Your task to perform on an android device: Search for "beats solo 3" on bestbuy.com, select the first entry, add it to the cart, then select checkout. Image 0: 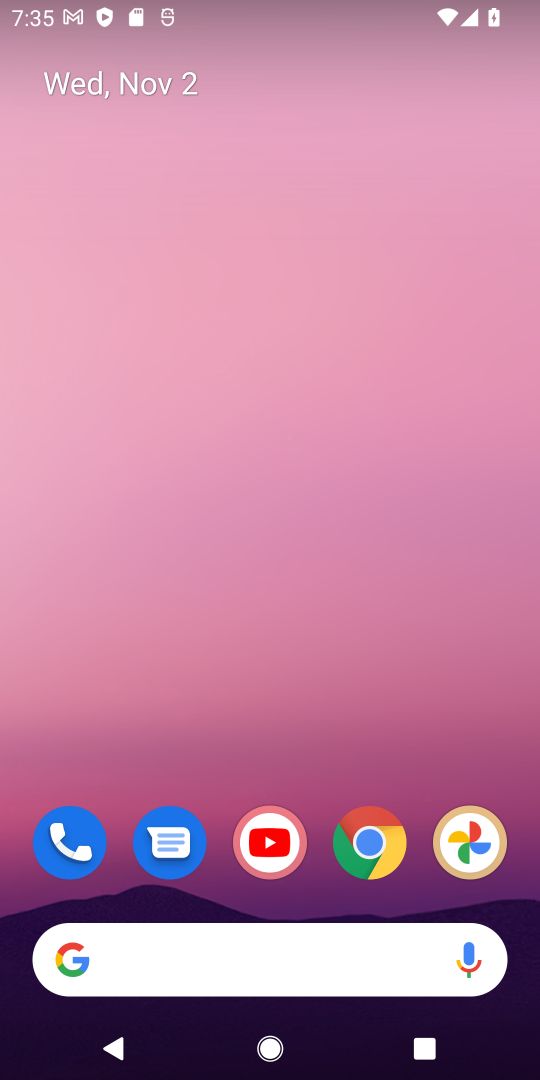
Step 0: drag from (216, 938) to (244, 308)
Your task to perform on an android device: Search for "beats solo 3" on bestbuy.com, select the first entry, add it to the cart, then select checkout. Image 1: 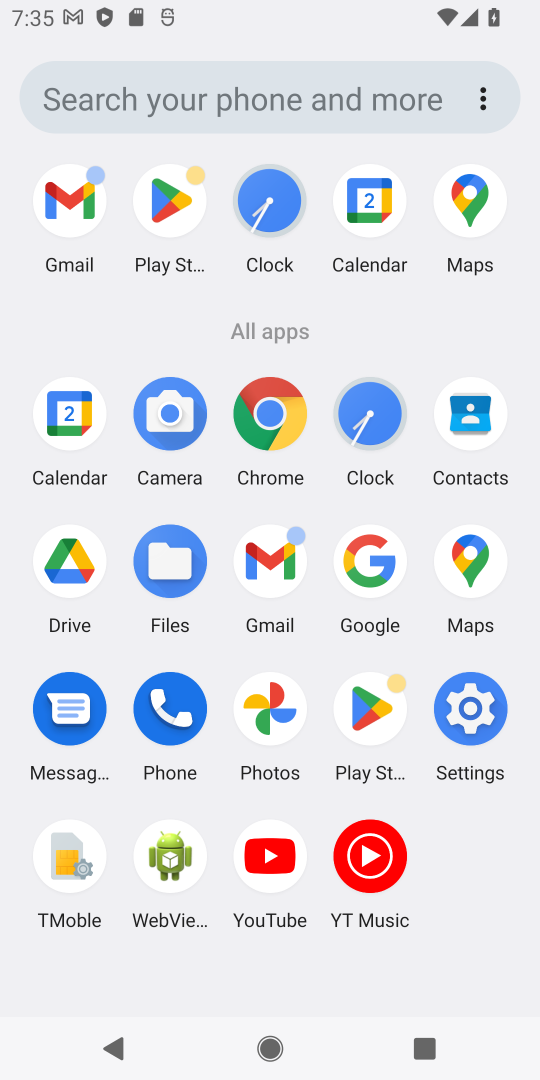
Step 1: click (354, 550)
Your task to perform on an android device: Search for "beats solo 3" on bestbuy.com, select the first entry, add it to the cart, then select checkout. Image 2: 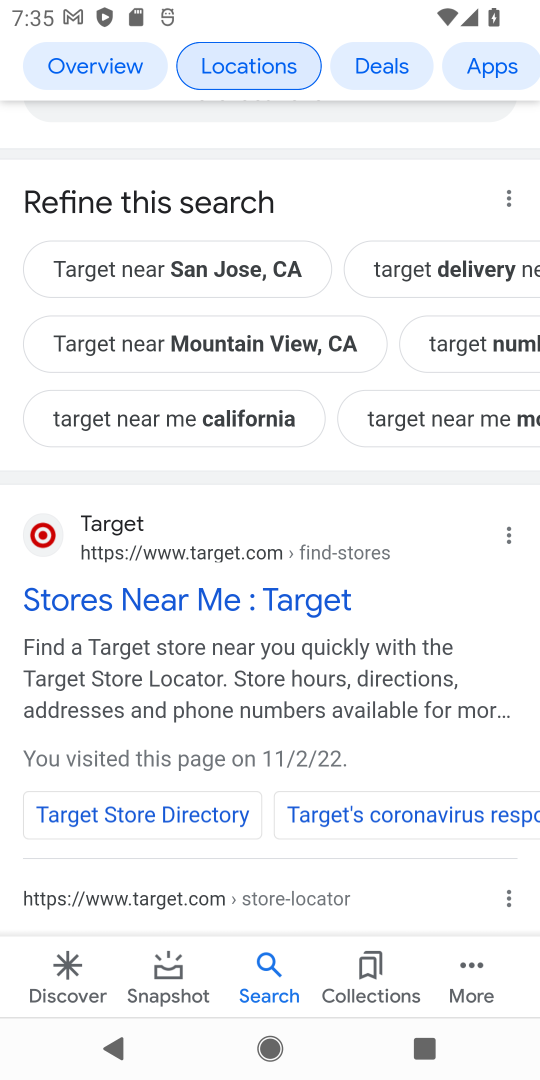
Step 2: drag from (258, 218) to (273, 718)
Your task to perform on an android device: Search for "beats solo 3" on bestbuy.com, select the first entry, add it to the cart, then select checkout. Image 3: 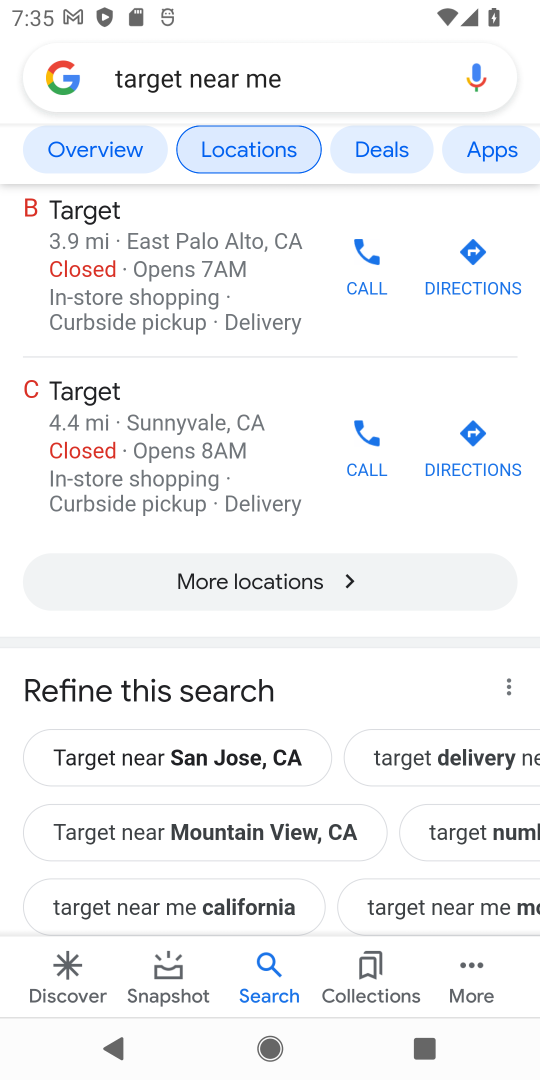
Step 3: drag from (226, 272) to (211, 772)
Your task to perform on an android device: Search for "beats solo 3" on bestbuy.com, select the first entry, add it to the cart, then select checkout. Image 4: 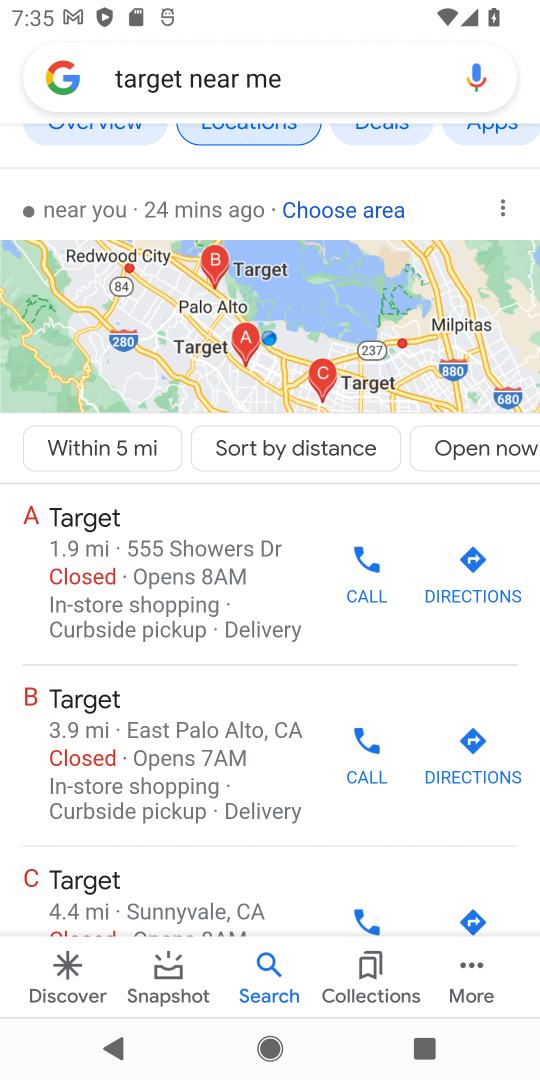
Step 4: drag from (251, 323) to (224, 964)
Your task to perform on an android device: Search for "beats solo 3" on bestbuy.com, select the first entry, add it to the cart, then select checkout. Image 5: 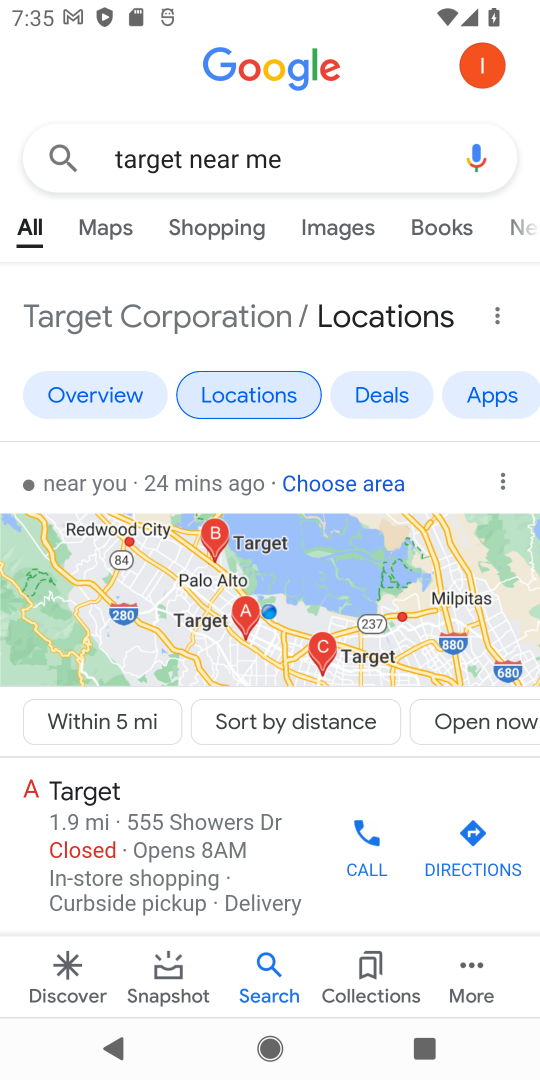
Step 5: click (332, 156)
Your task to perform on an android device: Search for "beats solo 3" on bestbuy.com, select the first entry, add it to the cart, then select checkout. Image 6: 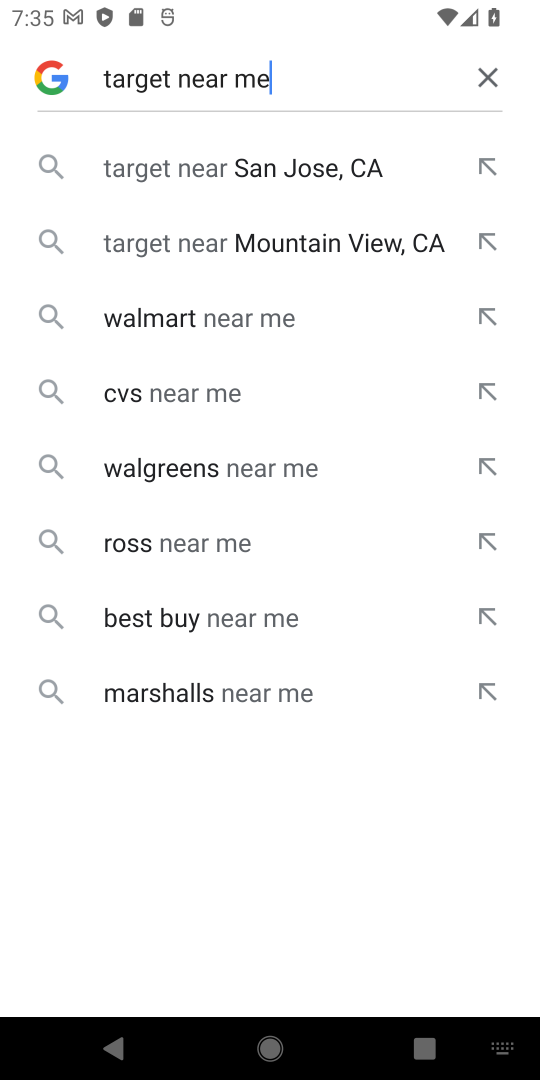
Step 6: click (498, 70)
Your task to perform on an android device: Search for "beats solo 3" on bestbuy.com, select the first entry, add it to the cart, then select checkout. Image 7: 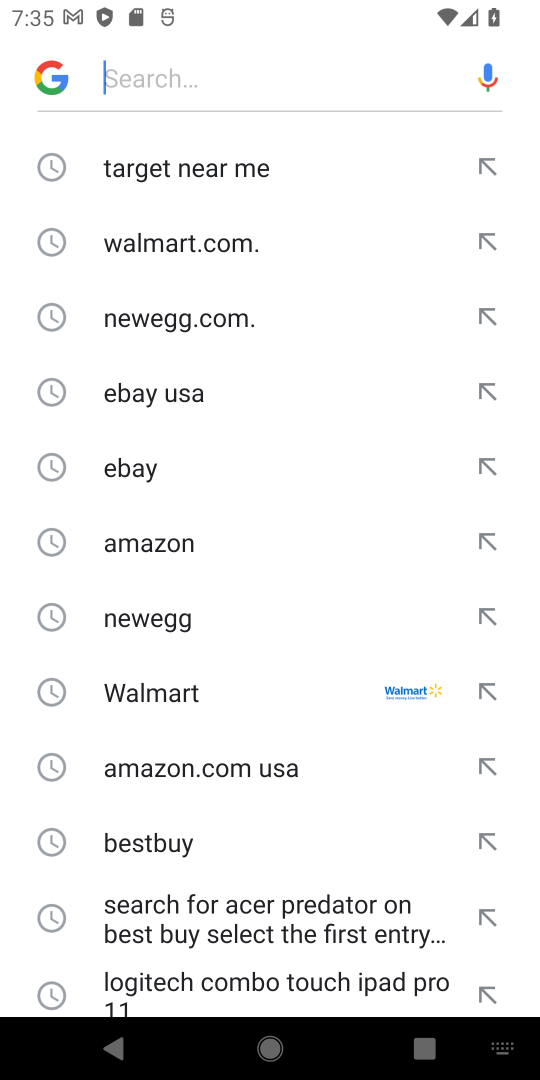
Step 7: click (245, 82)
Your task to perform on an android device: Search for "beats solo 3" on bestbuy.com, select the first entry, add it to the cart, then select checkout. Image 8: 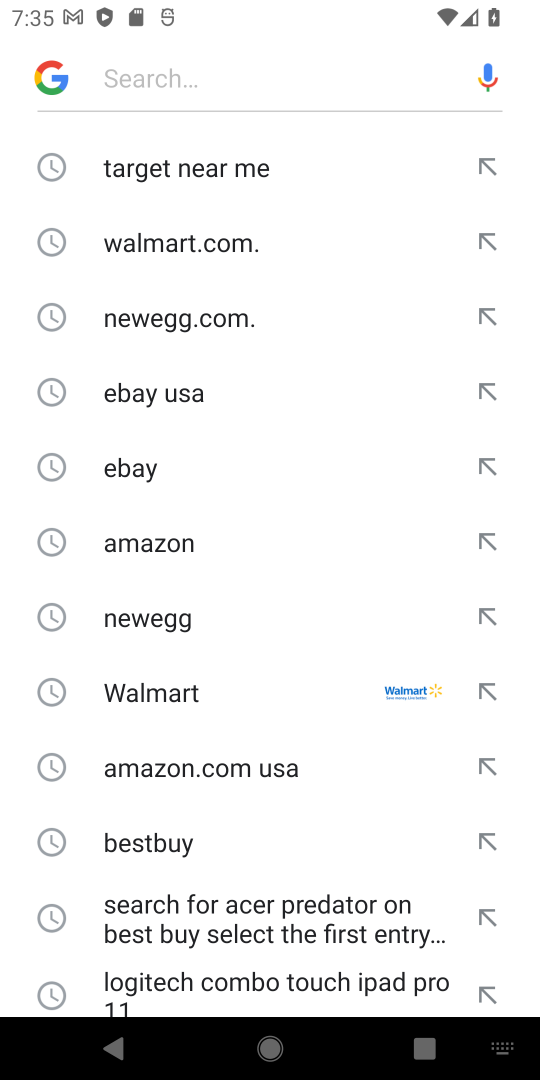
Step 8: type "bestbuy "
Your task to perform on an android device: Search for "beats solo 3" on bestbuy.com, select the first entry, add it to the cart, then select checkout. Image 9: 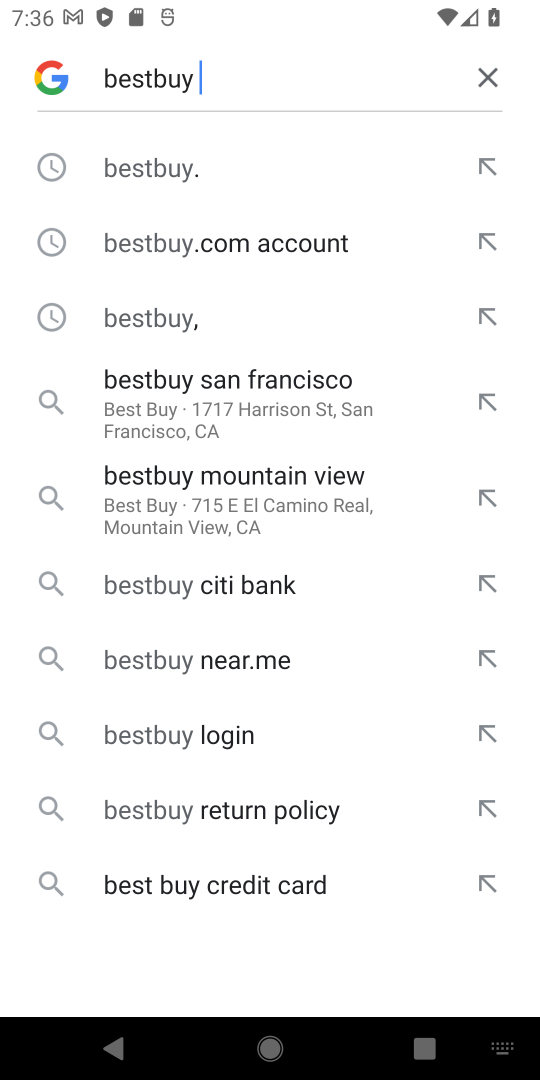
Step 9: click (128, 161)
Your task to perform on an android device: Search for "beats solo 3" on bestbuy.com, select the first entry, add it to the cart, then select checkout. Image 10: 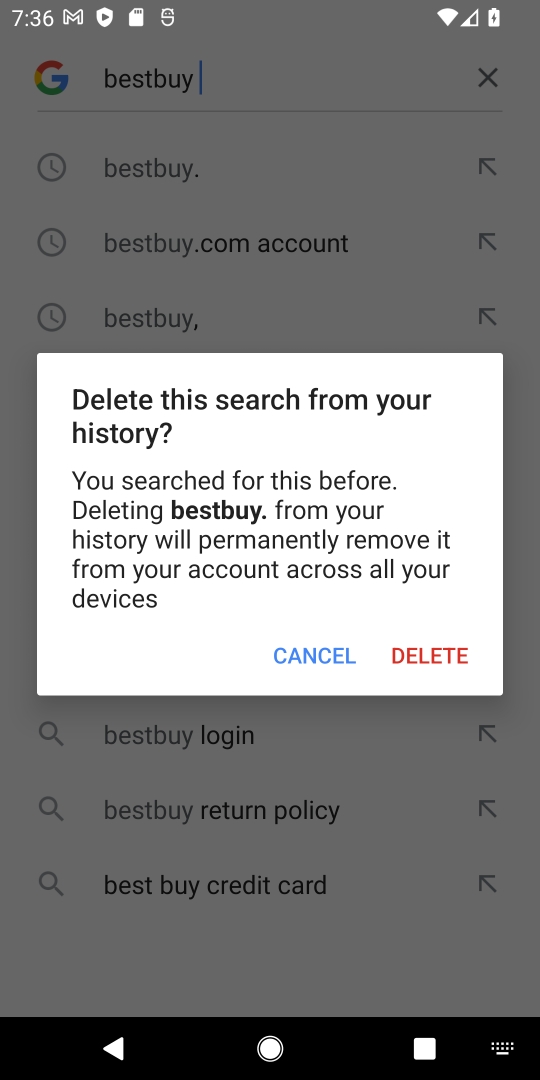
Step 10: click (301, 647)
Your task to perform on an android device: Search for "beats solo 3" on bestbuy.com, select the first entry, add it to the cart, then select checkout. Image 11: 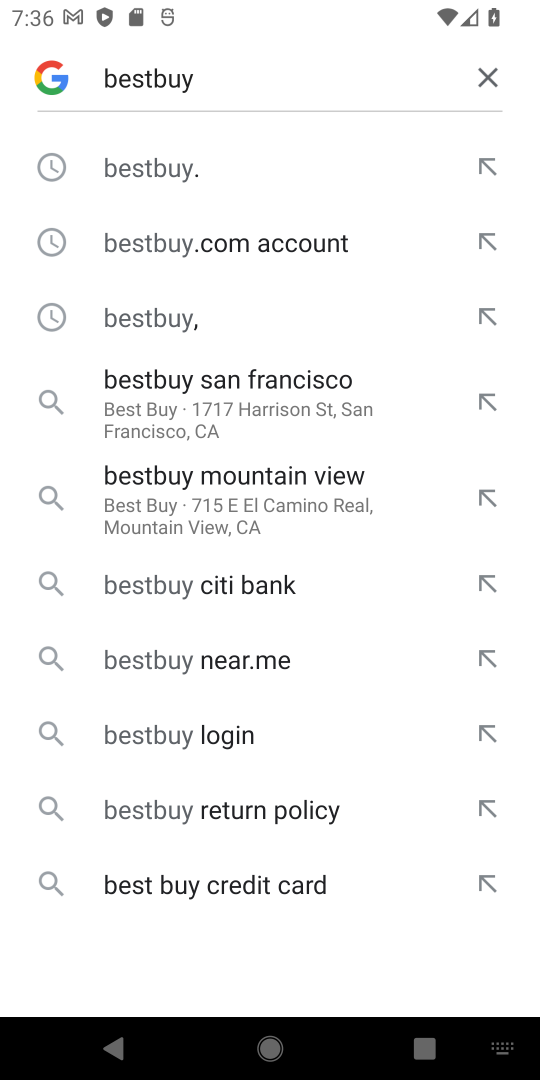
Step 11: click (193, 327)
Your task to perform on an android device: Search for "beats solo 3" on bestbuy.com, select the first entry, add it to the cart, then select checkout. Image 12: 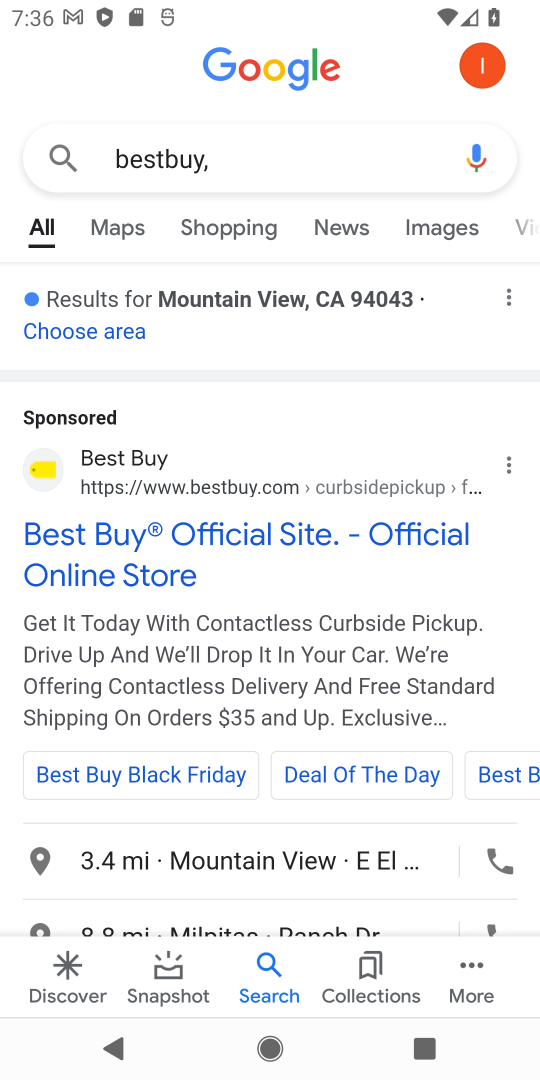
Step 12: click (49, 472)
Your task to perform on an android device: Search for "beats solo 3" on bestbuy.com, select the first entry, add it to the cart, then select checkout. Image 13: 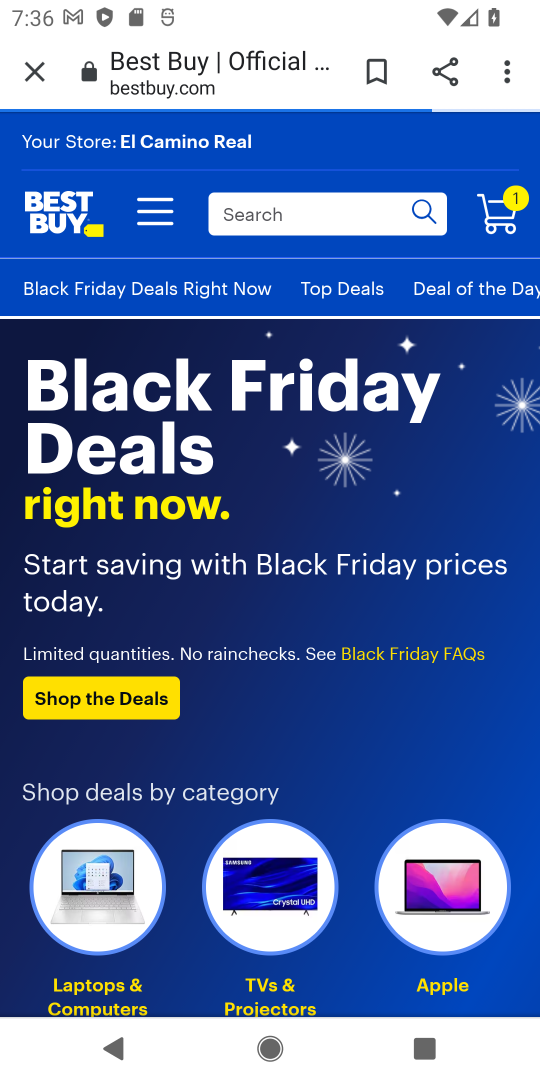
Step 13: click (311, 210)
Your task to perform on an android device: Search for "beats solo 3" on bestbuy.com, select the first entry, add it to the cart, then select checkout. Image 14: 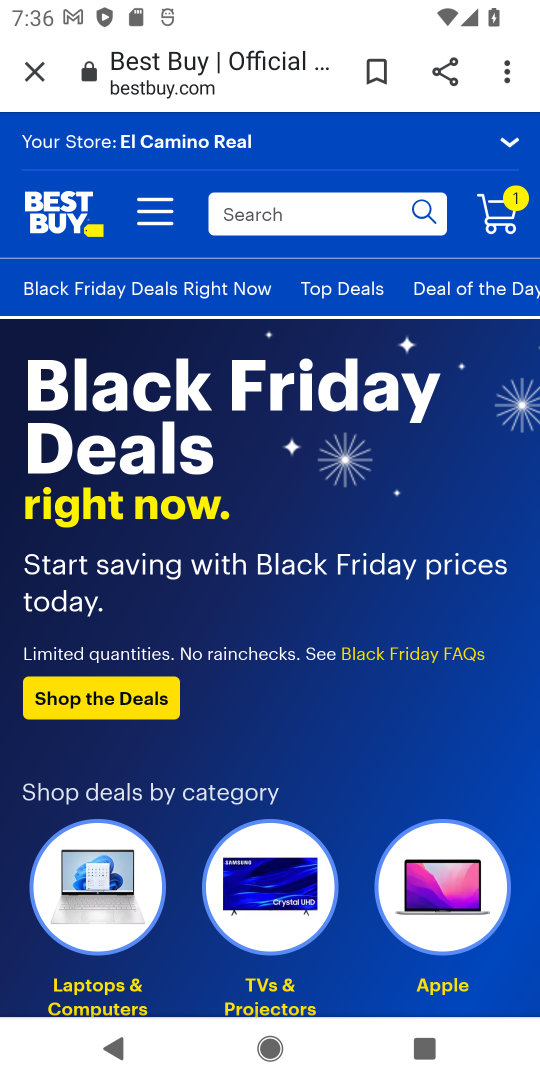
Step 14: click (319, 193)
Your task to perform on an android device: Search for "beats solo 3" on bestbuy.com, select the first entry, add it to the cart, then select checkout. Image 15: 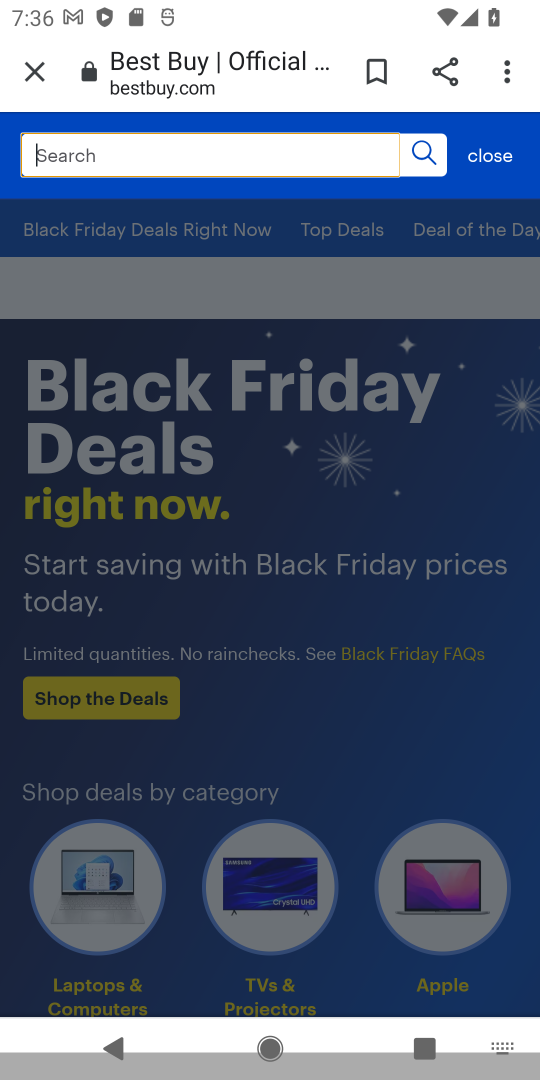
Step 15: click (324, 208)
Your task to perform on an android device: Search for "beats solo 3" on bestbuy.com, select the first entry, add it to the cart, then select checkout. Image 16: 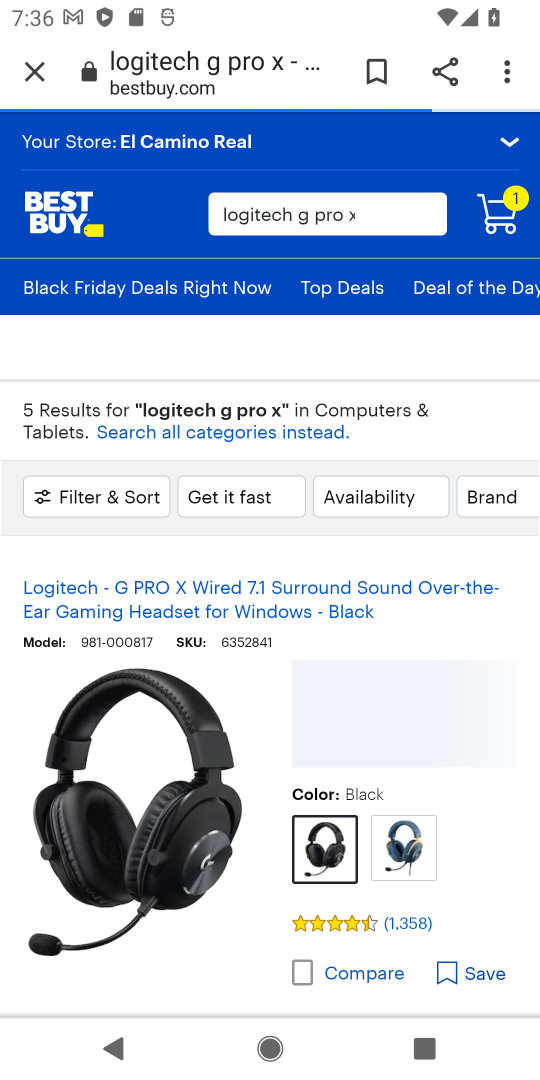
Step 16: click (315, 209)
Your task to perform on an android device: Search for "beats solo 3" on bestbuy.com, select the first entry, add it to the cart, then select checkout. Image 17: 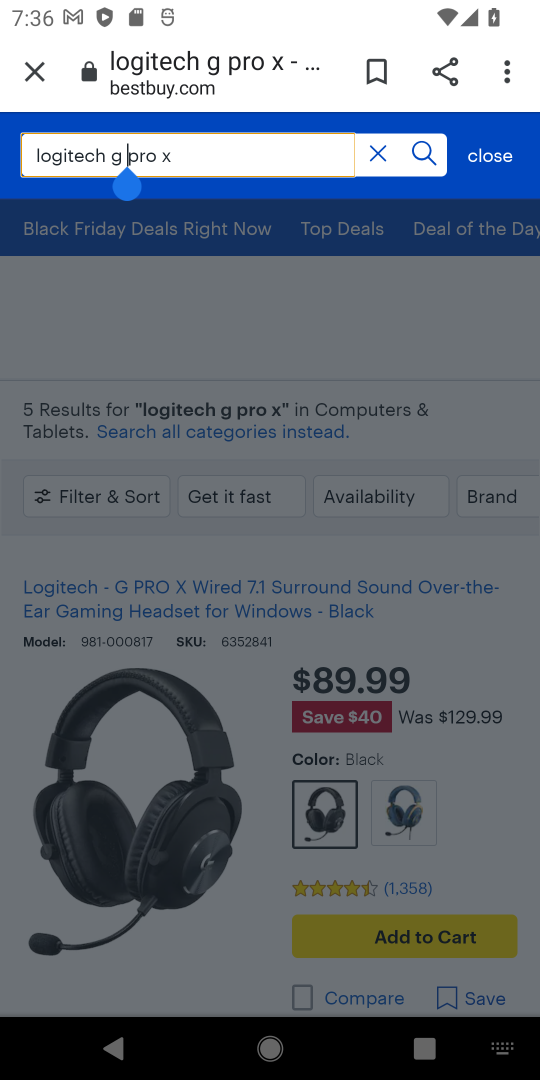
Step 17: click (374, 153)
Your task to perform on an android device: Search for "beats solo 3" on bestbuy.com, select the first entry, add it to the cart, then select checkout. Image 18: 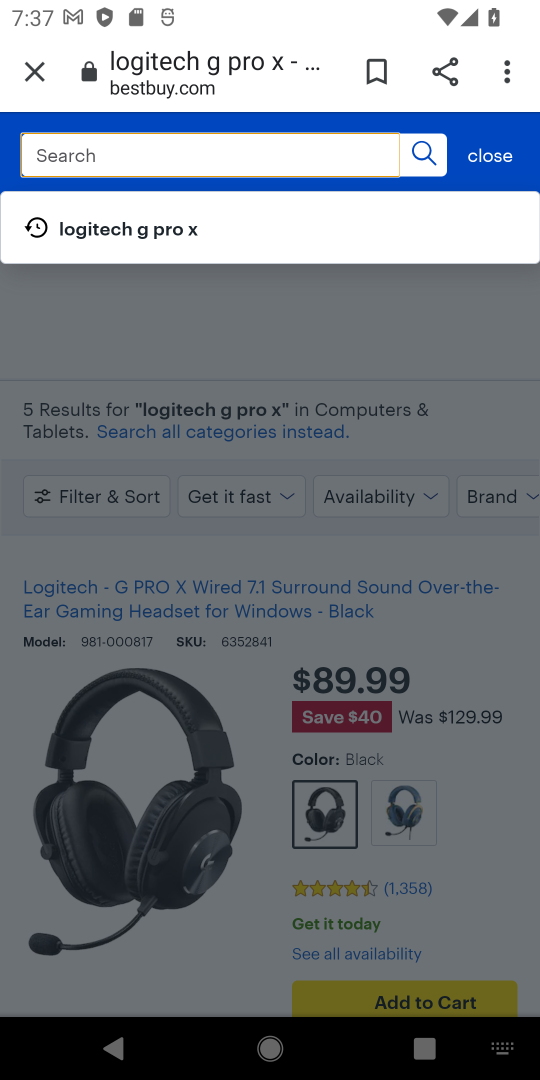
Step 18: click (184, 137)
Your task to perform on an android device: Search for "beats solo 3" on bestbuy.com, select the first entry, add it to the cart, then select checkout. Image 19: 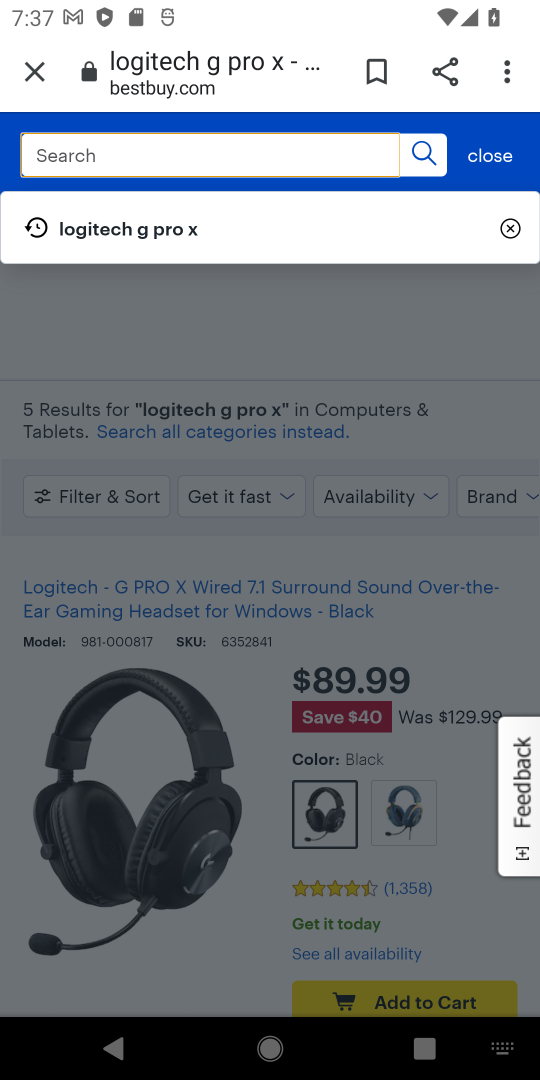
Step 19: type ""beats solo 3" "
Your task to perform on an android device: Search for "beats solo 3" on bestbuy.com, select the first entry, add it to the cart, then select checkout. Image 20: 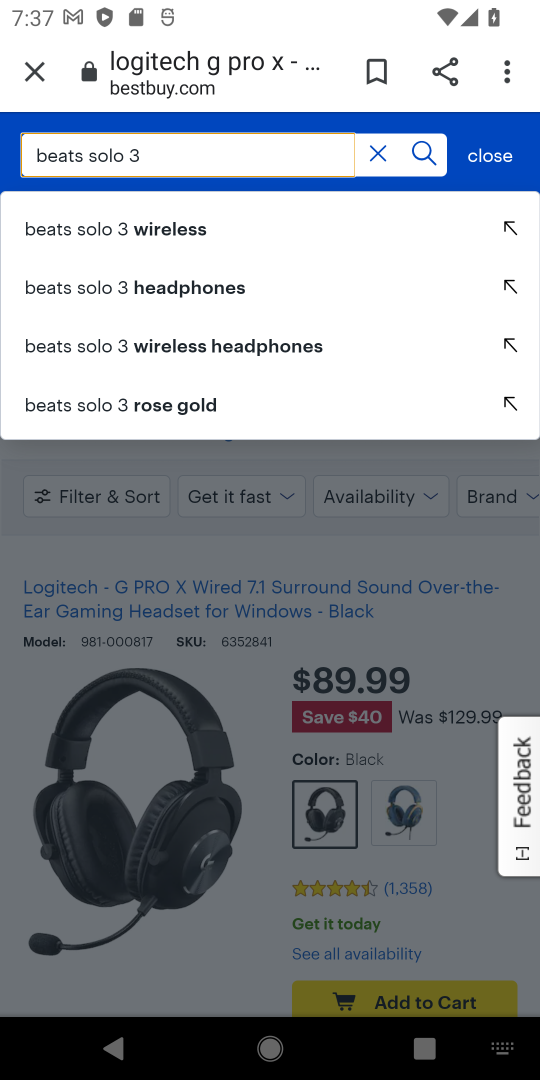
Step 20: click (45, 252)
Your task to perform on an android device: Search for "beats solo 3" on bestbuy.com, select the first entry, add it to the cart, then select checkout. Image 21: 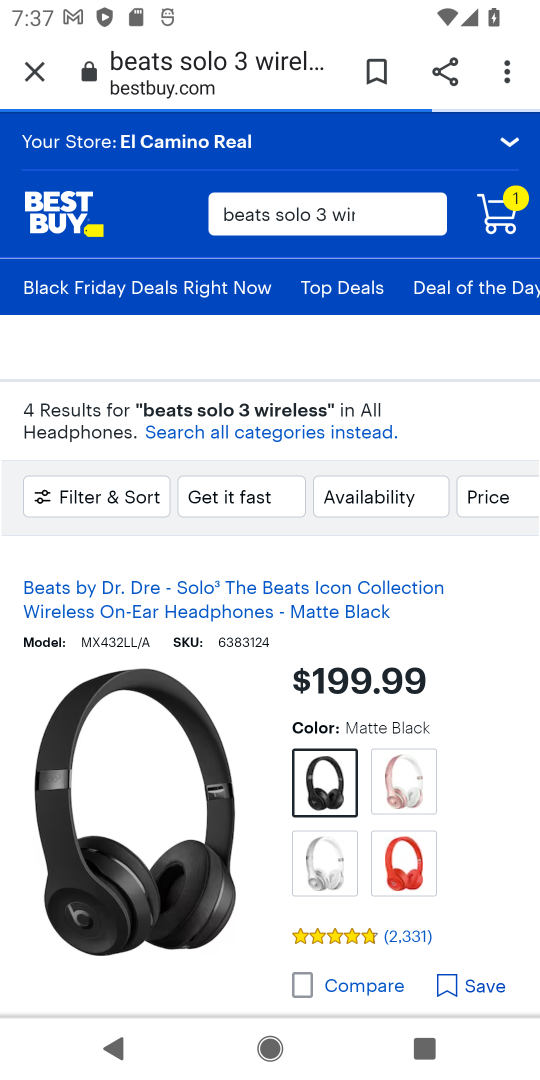
Step 21: drag from (218, 917) to (298, 476)
Your task to perform on an android device: Search for "beats solo 3" on bestbuy.com, select the first entry, add it to the cart, then select checkout. Image 22: 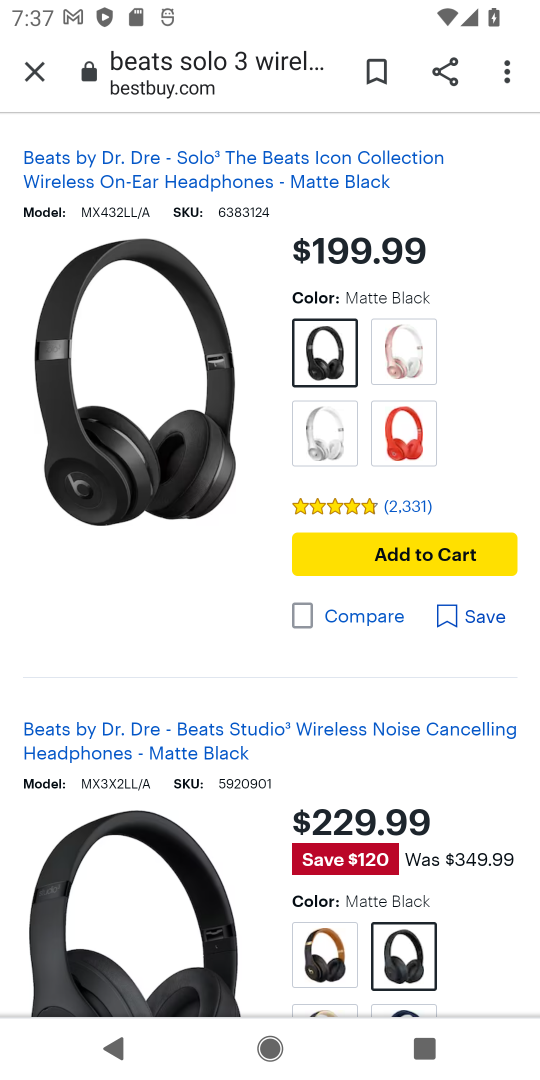
Step 22: click (302, 740)
Your task to perform on an android device: Search for "beats solo 3" on bestbuy.com, select the first entry, add it to the cart, then select checkout. Image 23: 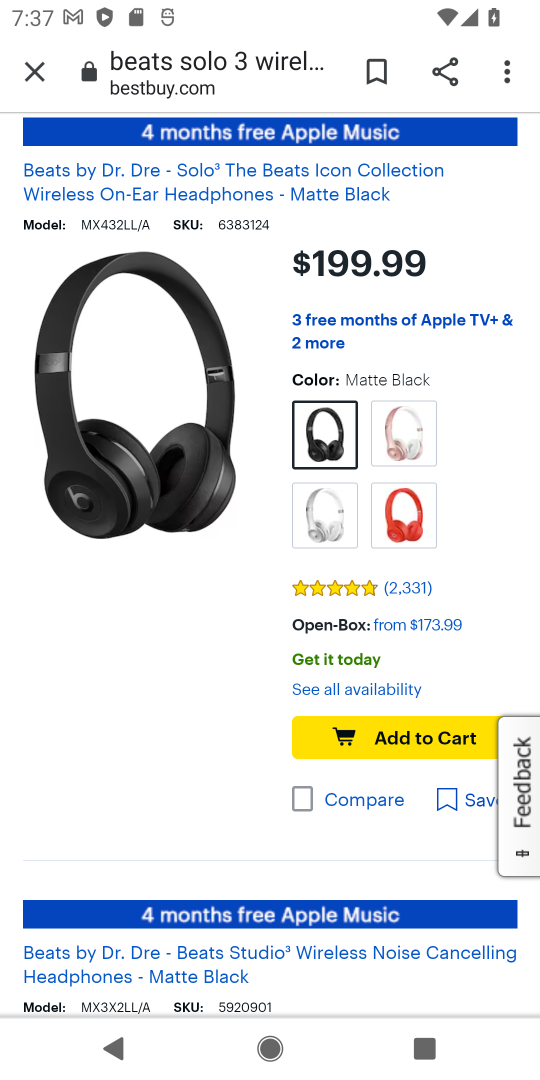
Step 23: click (404, 736)
Your task to perform on an android device: Search for "beats solo 3" on bestbuy.com, select the first entry, add it to the cart, then select checkout. Image 24: 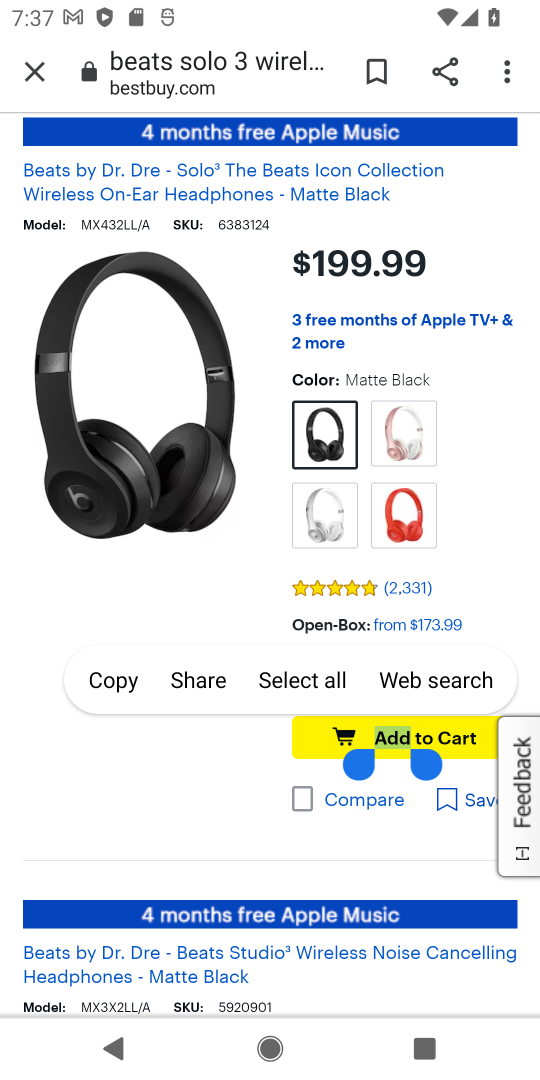
Step 24: click (345, 729)
Your task to perform on an android device: Search for "beats solo 3" on bestbuy.com, select the first entry, add it to the cart, then select checkout. Image 25: 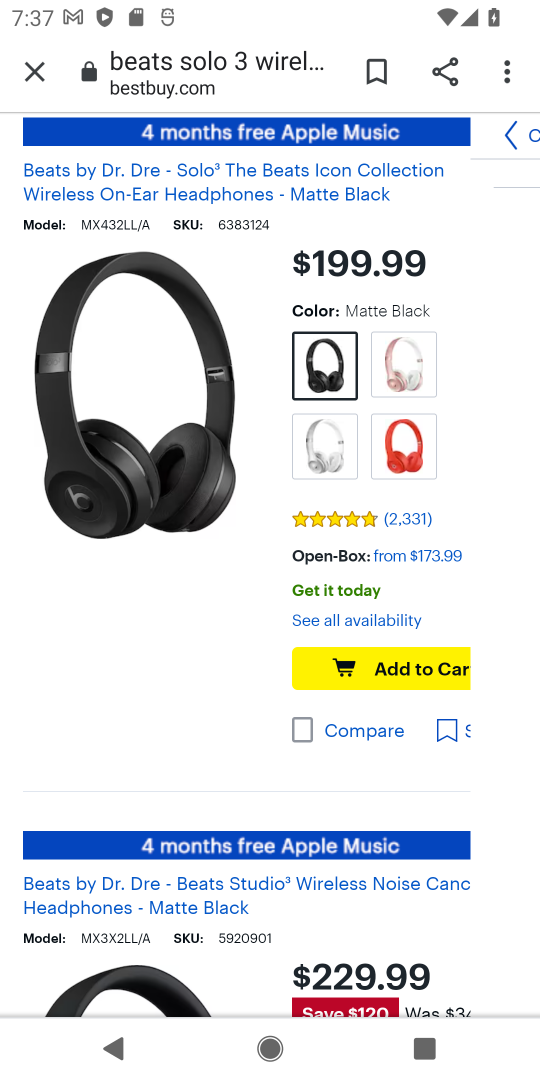
Step 25: task complete